Your task to perform on an android device: Open Yahoo.com Image 0: 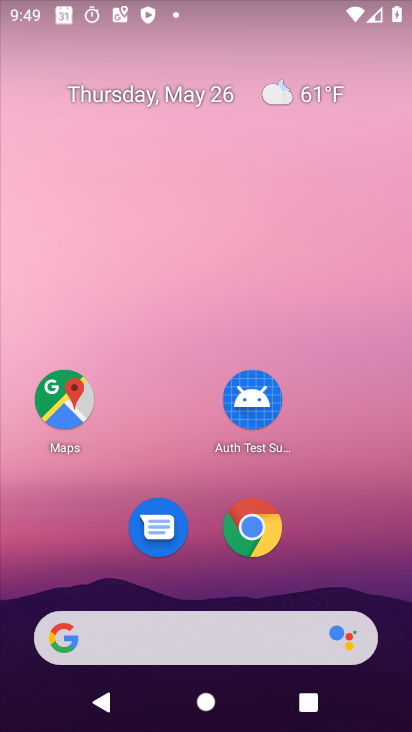
Step 0: drag from (354, 490) to (335, 22)
Your task to perform on an android device: Open Yahoo.com Image 1: 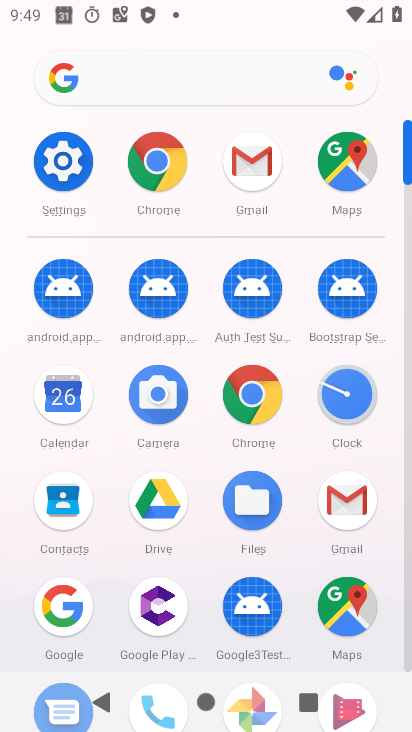
Step 1: click (135, 164)
Your task to perform on an android device: Open Yahoo.com Image 2: 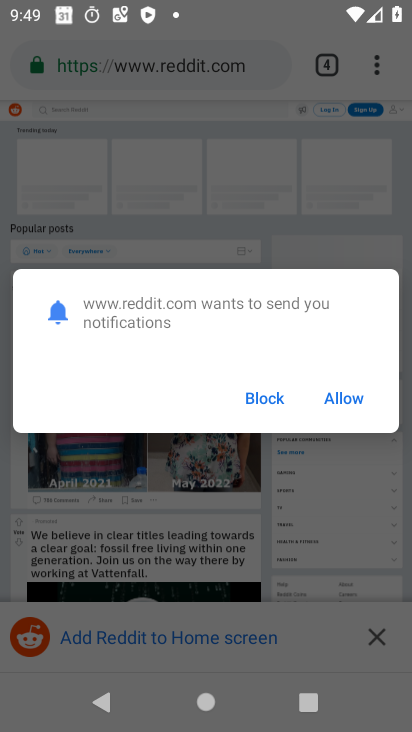
Step 2: click (196, 49)
Your task to perform on an android device: Open Yahoo.com Image 3: 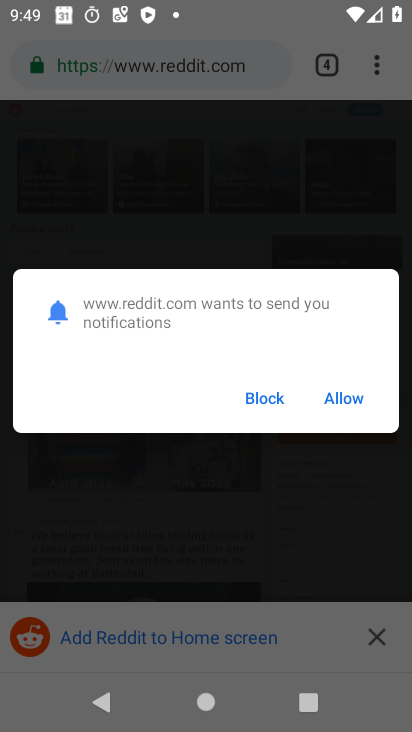
Step 3: click (255, 399)
Your task to perform on an android device: Open Yahoo.com Image 4: 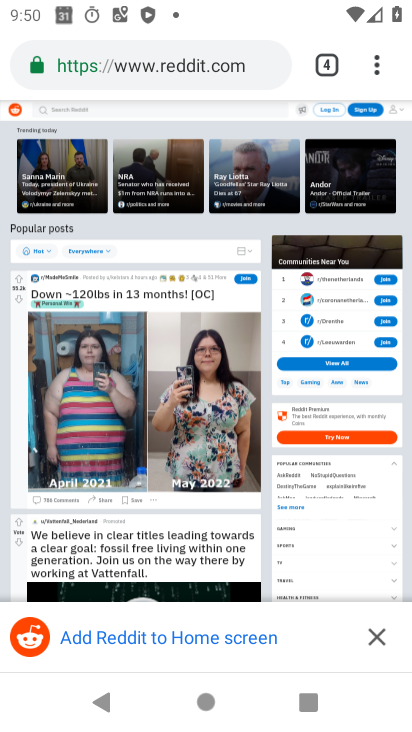
Step 4: click (182, 71)
Your task to perform on an android device: Open Yahoo.com Image 5: 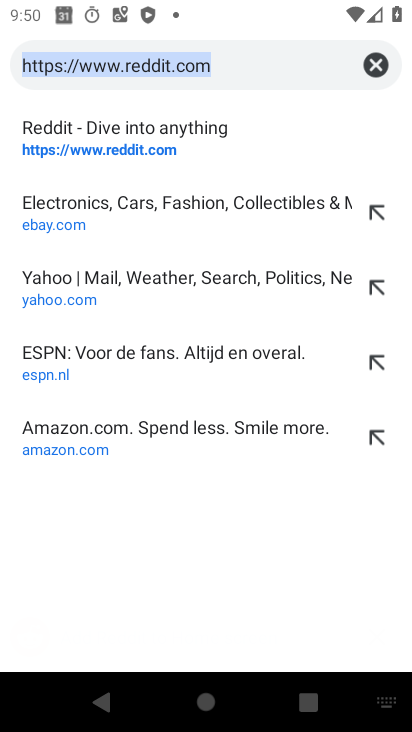
Step 5: click (376, 62)
Your task to perform on an android device: Open Yahoo.com Image 6: 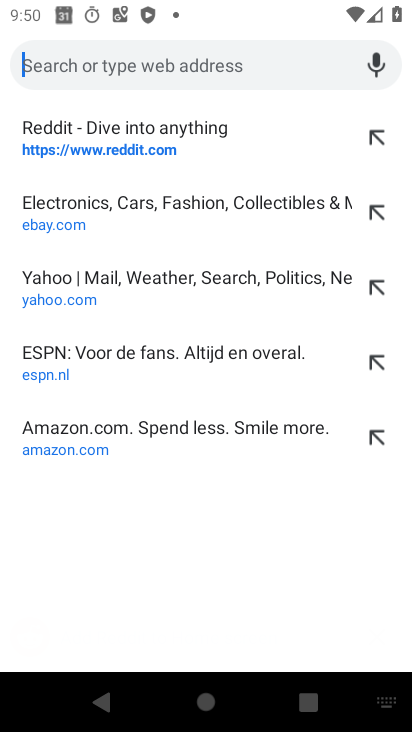
Step 6: type "yahoo"
Your task to perform on an android device: Open Yahoo.com Image 7: 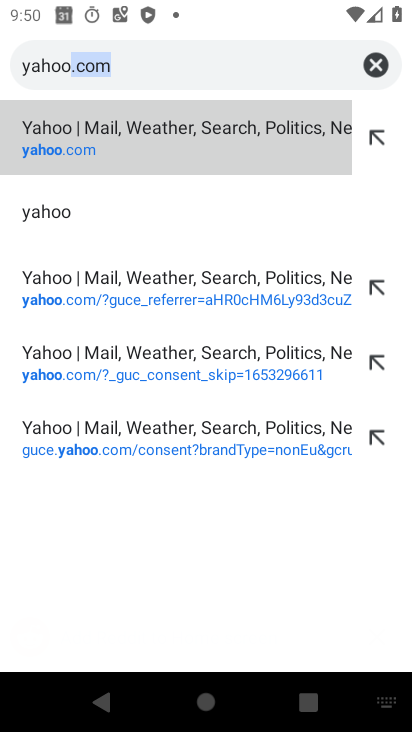
Step 7: click (78, 135)
Your task to perform on an android device: Open Yahoo.com Image 8: 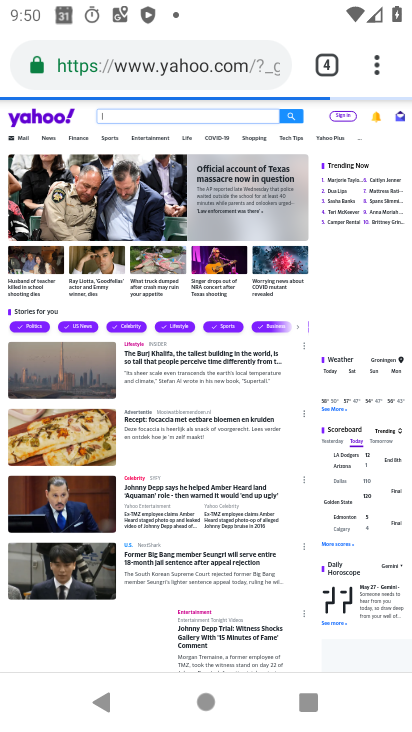
Step 8: task complete